Your task to perform on an android device: check battery use Image 0: 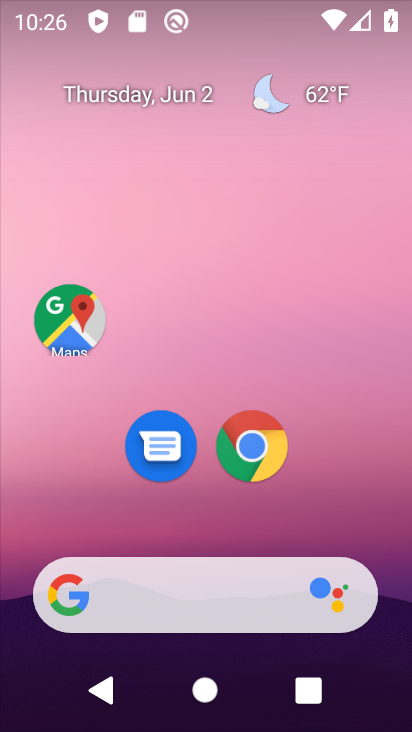
Step 0: drag from (345, 494) to (339, 176)
Your task to perform on an android device: check battery use Image 1: 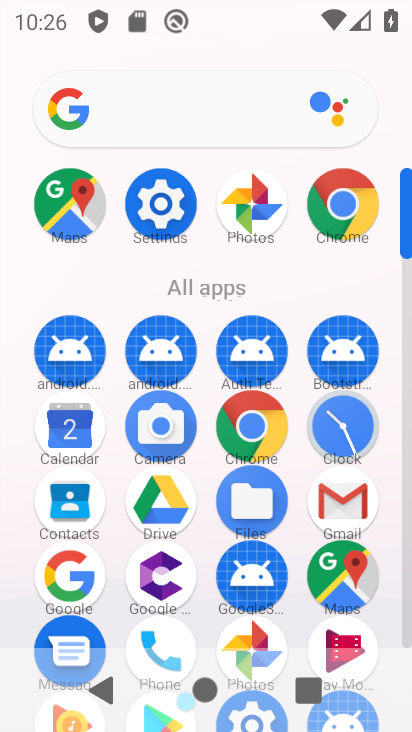
Step 1: click (170, 219)
Your task to perform on an android device: check battery use Image 2: 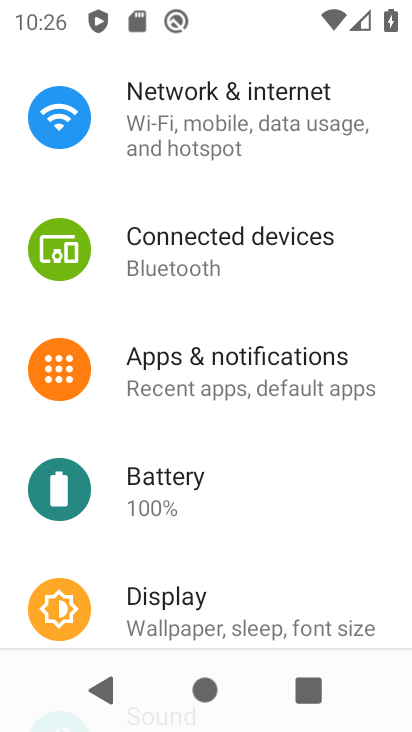
Step 2: drag from (228, 495) to (251, 129)
Your task to perform on an android device: check battery use Image 3: 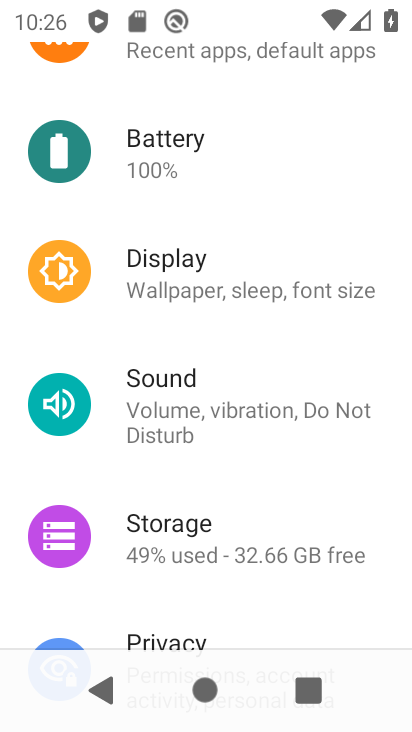
Step 3: drag from (201, 523) to (233, 226)
Your task to perform on an android device: check battery use Image 4: 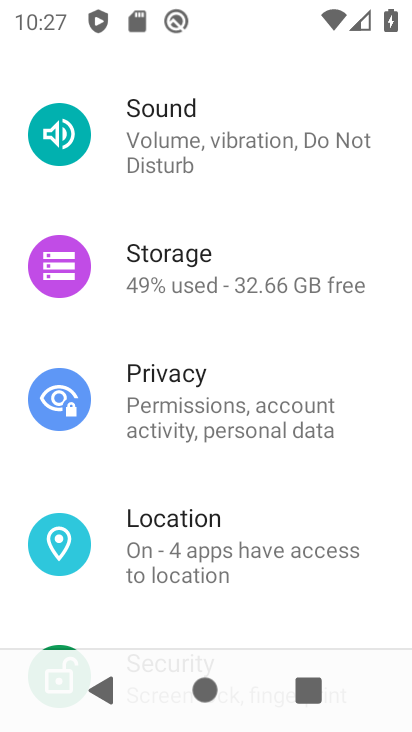
Step 4: drag from (206, 211) to (176, 633)
Your task to perform on an android device: check battery use Image 5: 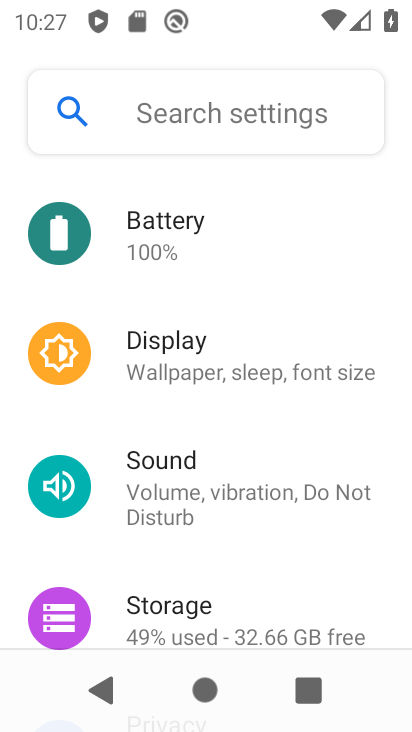
Step 5: click (181, 249)
Your task to perform on an android device: check battery use Image 6: 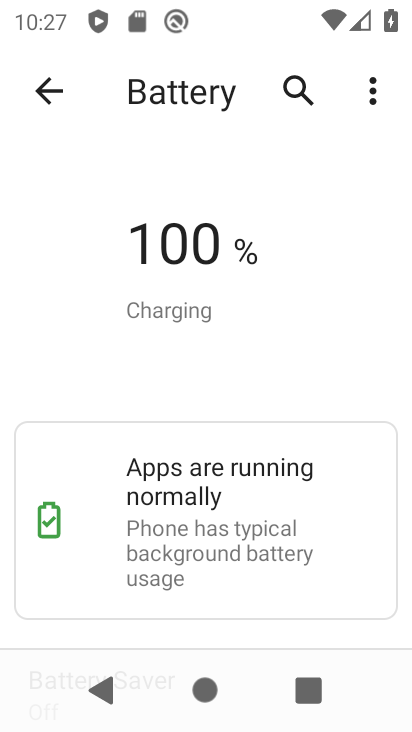
Step 6: drag from (269, 579) to (253, 306)
Your task to perform on an android device: check battery use Image 7: 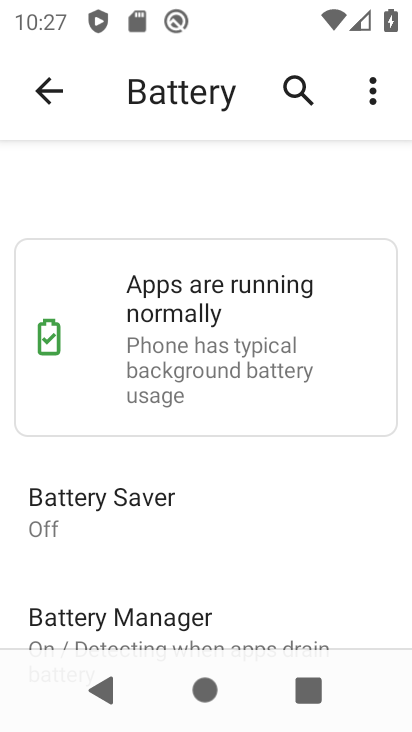
Step 7: click (368, 89)
Your task to perform on an android device: check battery use Image 8: 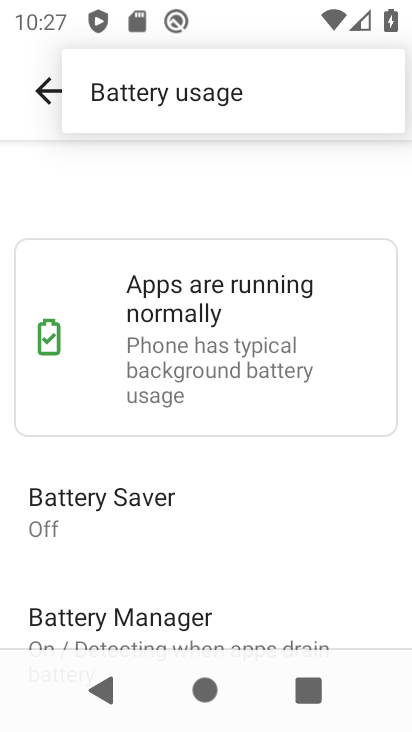
Step 8: click (267, 92)
Your task to perform on an android device: check battery use Image 9: 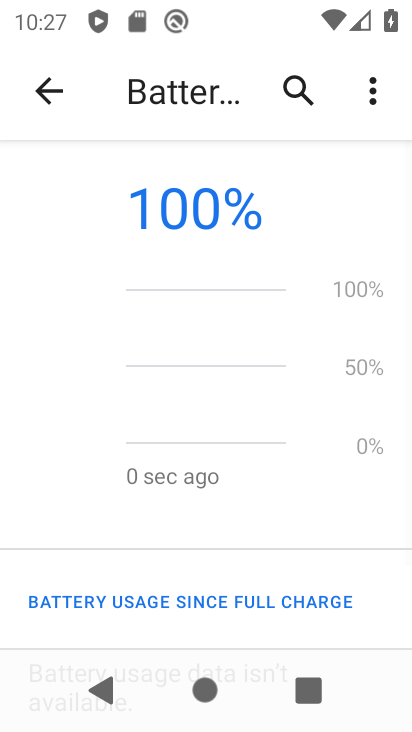
Step 9: task complete